Your task to perform on an android device: toggle translation in the chrome app Image 0: 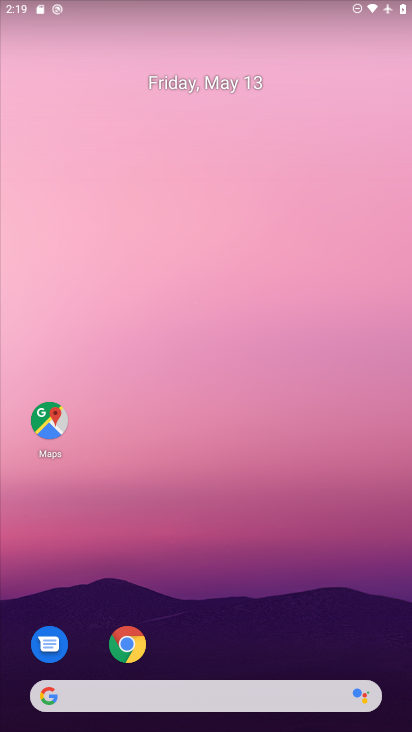
Step 0: drag from (348, 632) to (276, 57)
Your task to perform on an android device: toggle translation in the chrome app Image 1: 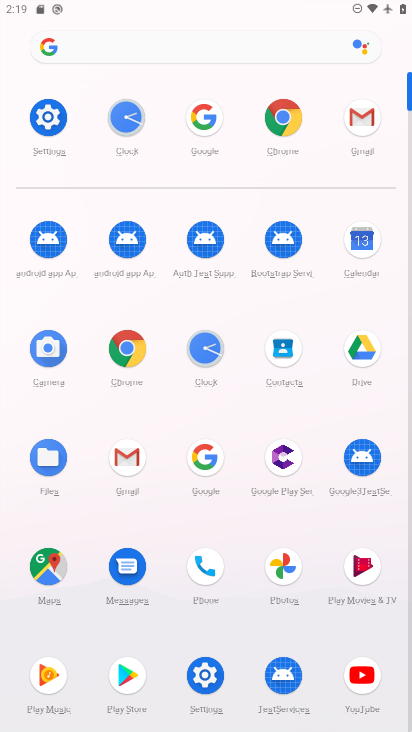
Step 1: click (289, 119)
Your task to perform on an android device: toggle translation in the chrome app Image 2: 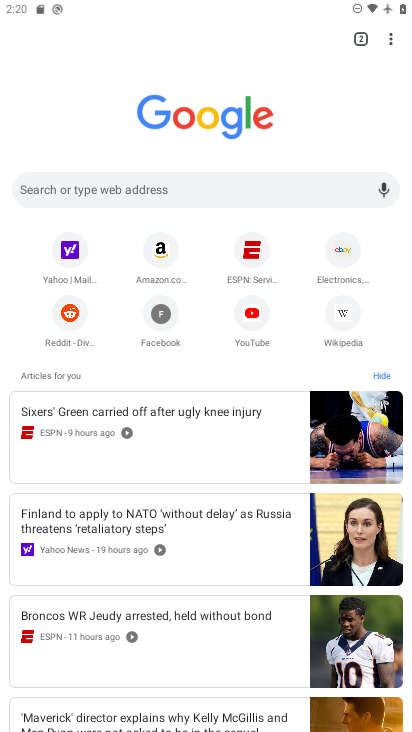
Step 2: click (392, 40)
Your task to perform on an android device: toggle translation in the chrome app Image 3: 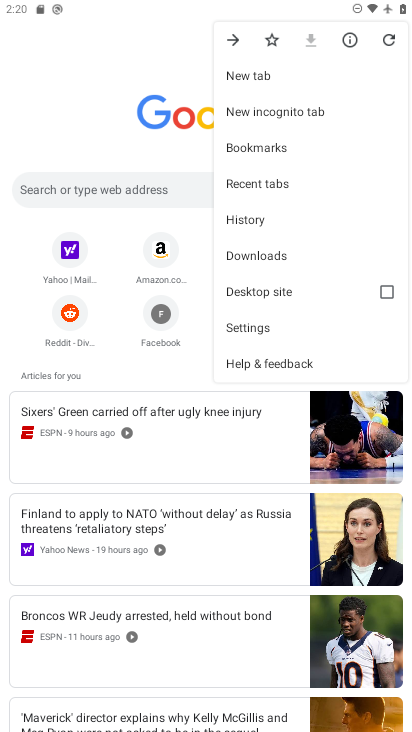
Step 3: click (299, 331)
Your task to perform on an android device: toggle translation in the chrome app Image 4: 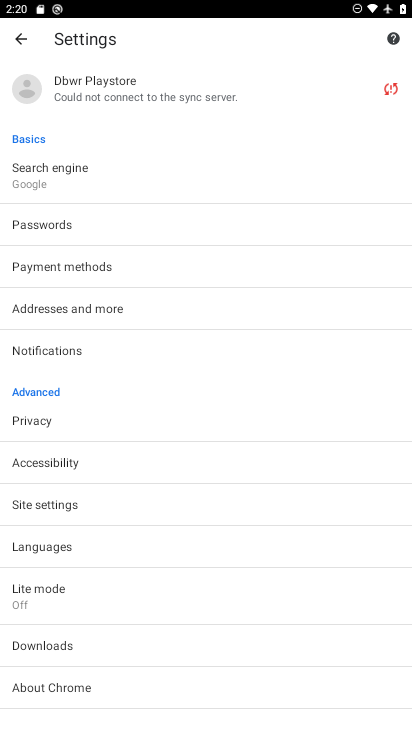
Step 4: click (139, 545)
Your task to perform on an android device: toggle translation in the chrome app Image 5: 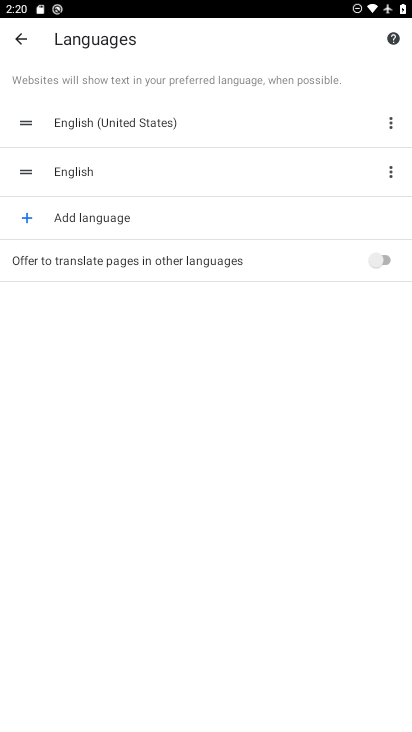
Step 5: click (362, 259)
Your task to perform on an android device: toggle translation in the chrome app Image 6: 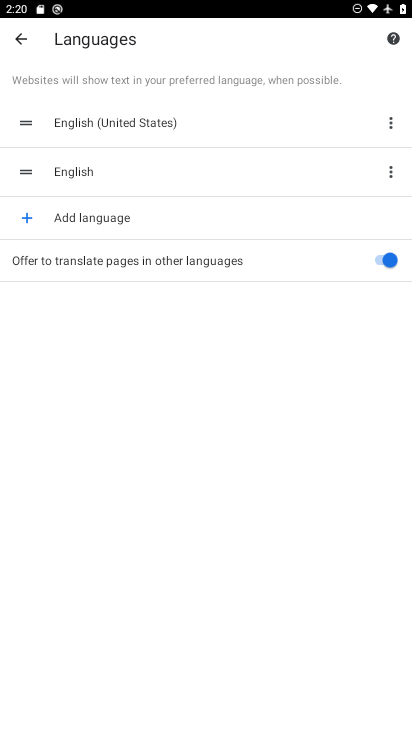
Step 6: task complete